Your task to perform on an android device: delete location history Image 0: 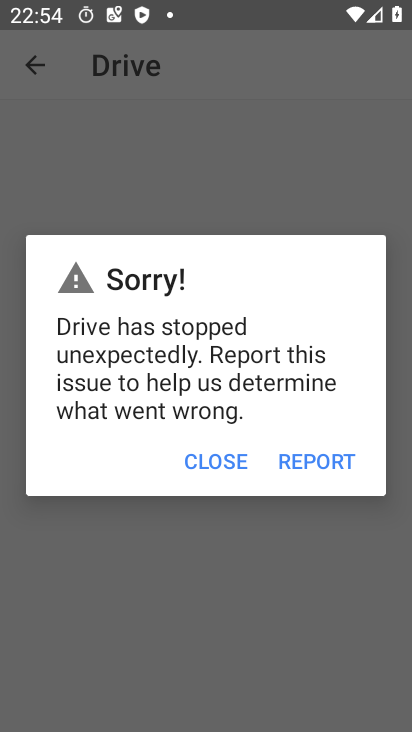
Step 0: press home button
Your task to perform on an android device: delete location history Image 1: 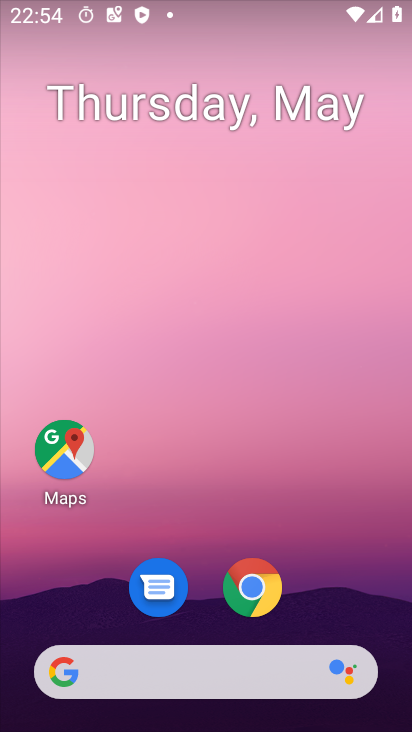
Step 1: click (43, 452)
Your task to perform on an android device: delete location history Image 2: 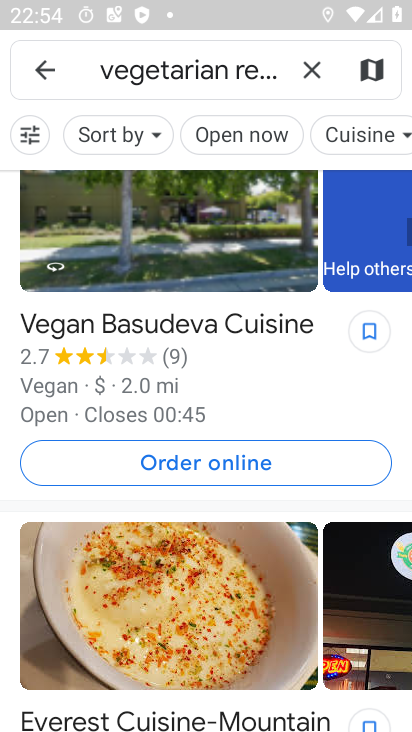
Step 2: click (322, 82)
Your task to perform on an android device: delete location history Image 3: 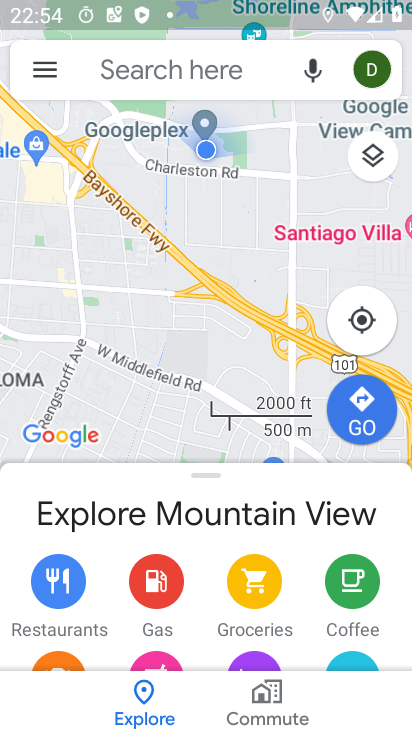
Step 3: click (46, 65)
Your task to perform on an android device: delete location history Image 4: 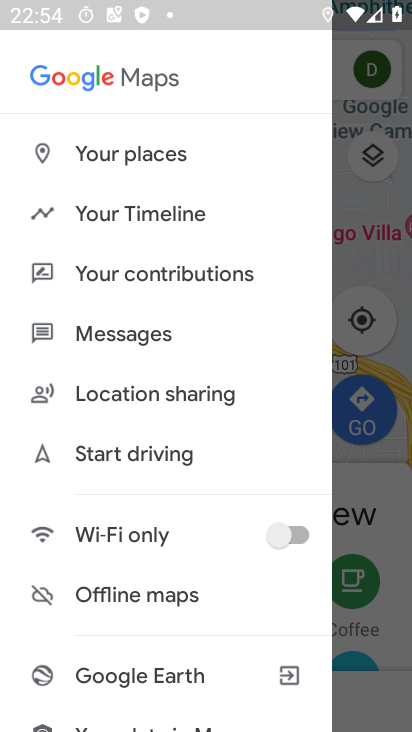
Step 4: click (127, 221)
Your task to perform on an android device: delete location history Image 5: 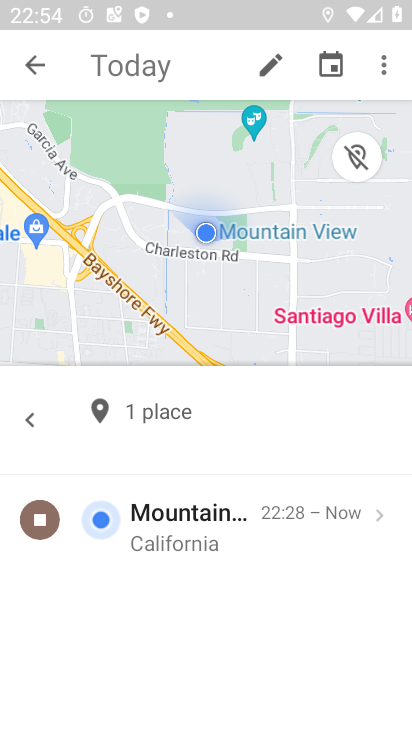
Step 5: click (378, 76)
Your task to perform on an android device: delete location history Image 6: 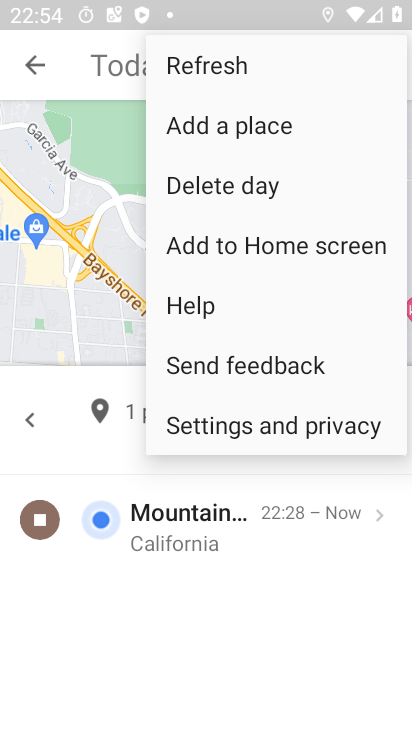
Step 6: click (262, 425)
Your task to perform on an android device: delete location history Image 7: 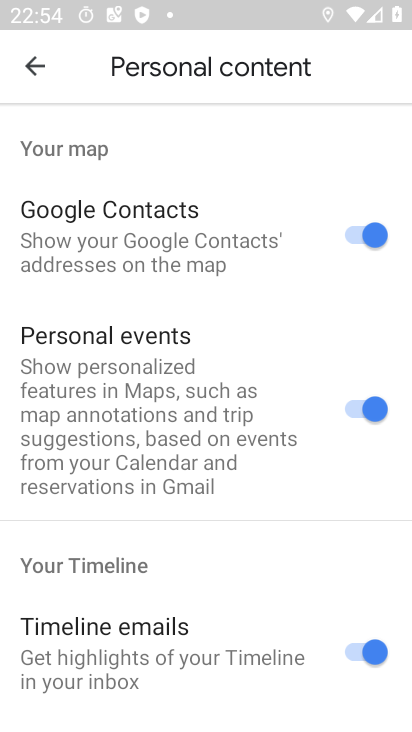
Step 7: drag from (173, 605) to (110, 50)
Your task to perform on an android device: delete location history Image 8: 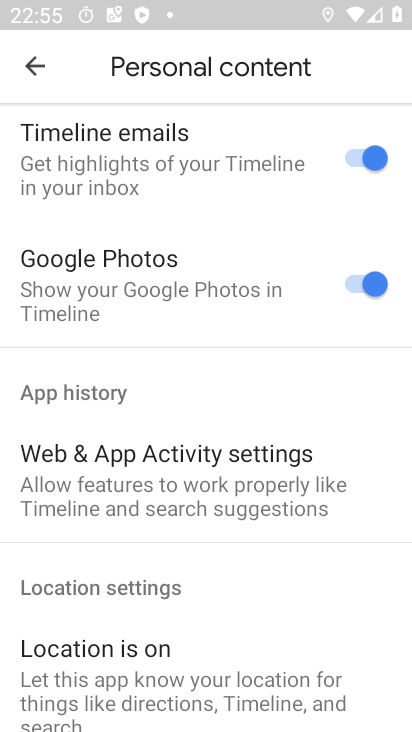
Step 8: drag from (123, 579) to (108, 136)
Your task to perform on an android device: delete location history Image 9: 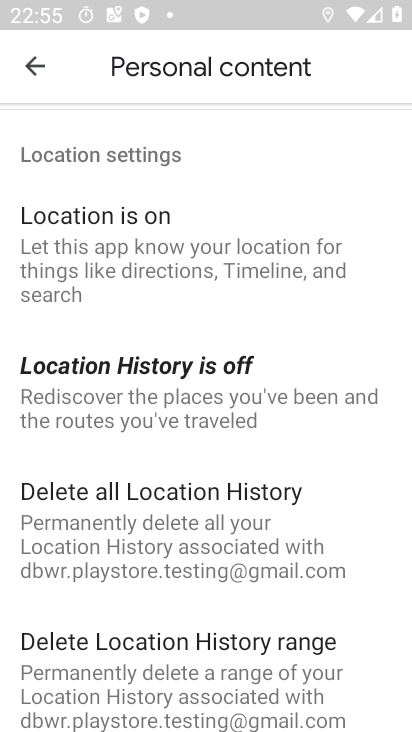
Step 9: click (92, 515)
Your task to perform on an android device: delete location history Image 10: 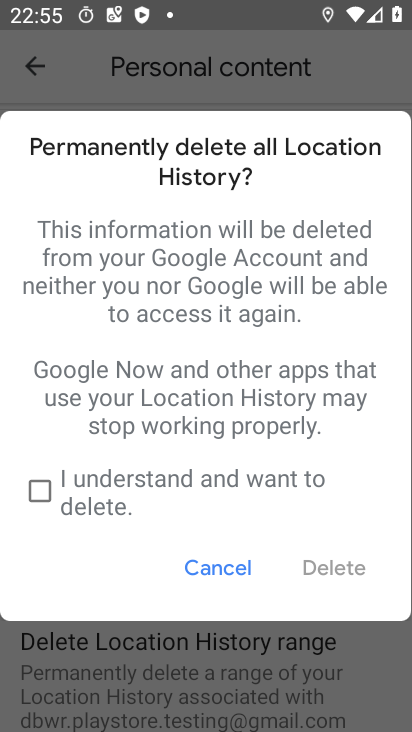
Step 10: click (26, 492)
Your task to perform on an android device: delete location history Image 11: 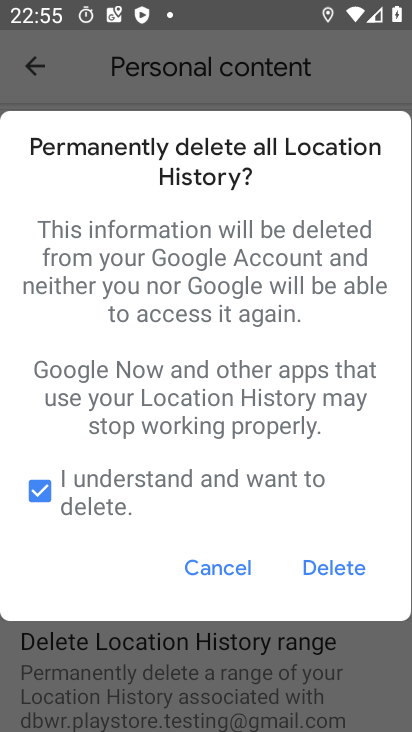
Step 11: click (358, 570)
Your task to perform on an android device: delete location history Image 12: 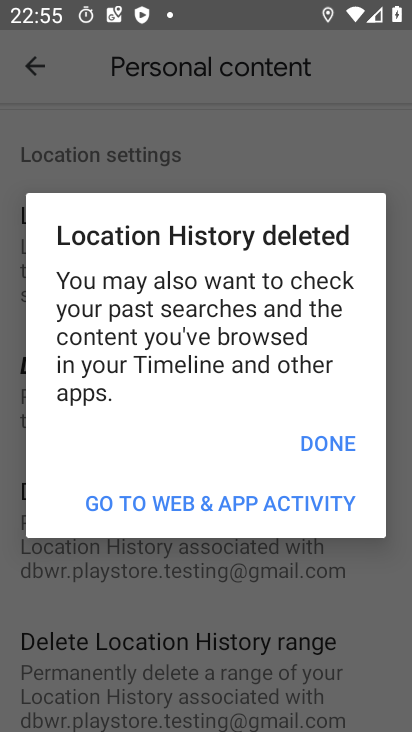
Step 12: click (350, 439)
Your task to perform on an android device: delete location history Image 13: 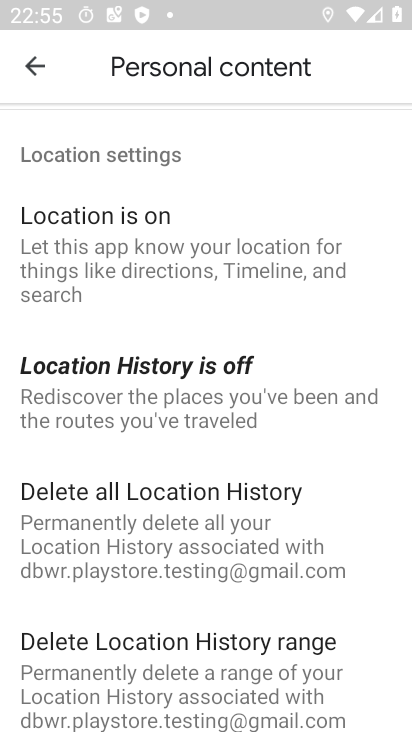
Step 13: task complete